Your task to perform on an android device: turn off notifications settings in the gmail app Image 0: 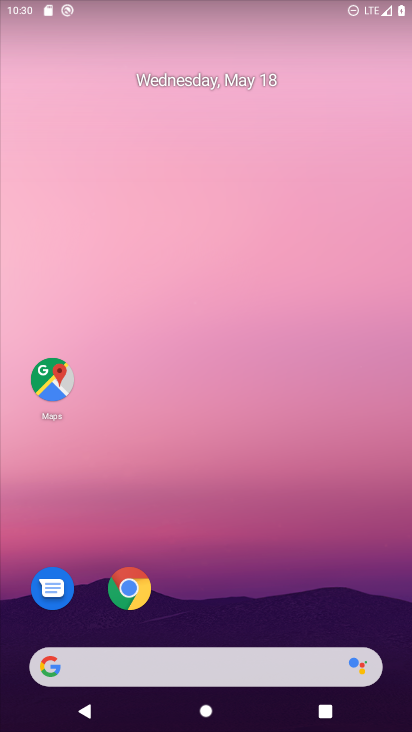
Step 0: drag from (341, 635) to (384, 24)
Your task to perform on an android device: turn off notifications settings in the gmail app Image 1: 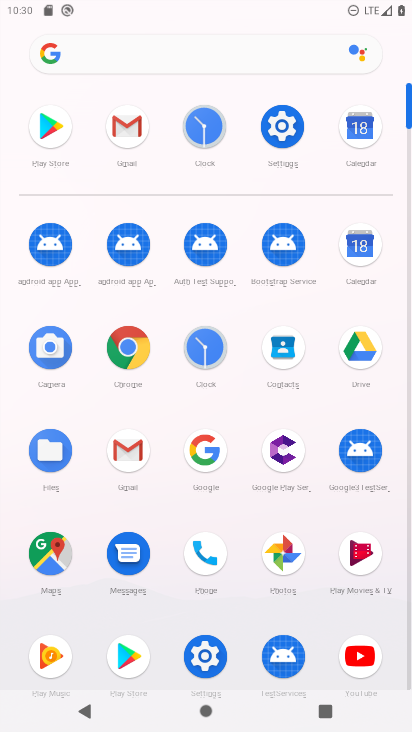
Step 1: click (128, 131)
Your task to perform on an android device: turn off notifications settings in the gmail app Image 2: 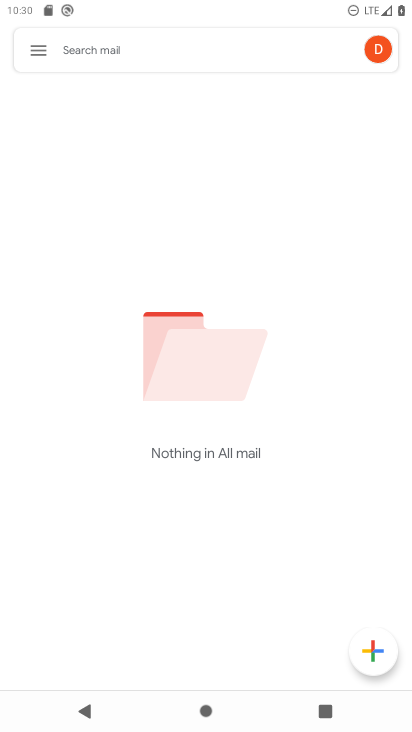
Step 2: click (37, 52)
Your task to perform on an android device: turn off notifications settings in the gmail app Image 3: 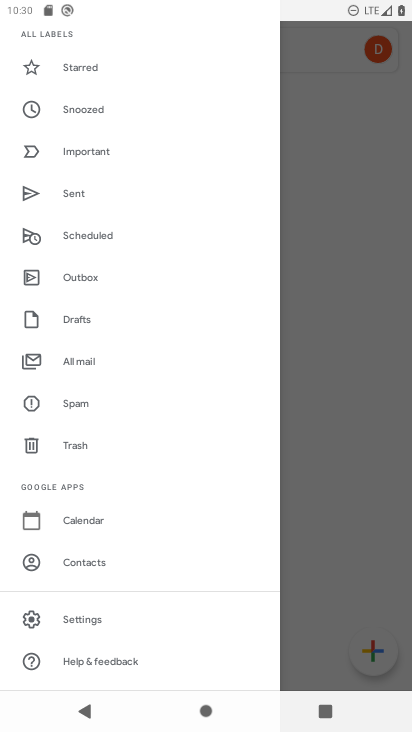
Step 3: click (80, 625)
Your task to perform on an android device: turn off notifications settings in the gmail app Image 4: 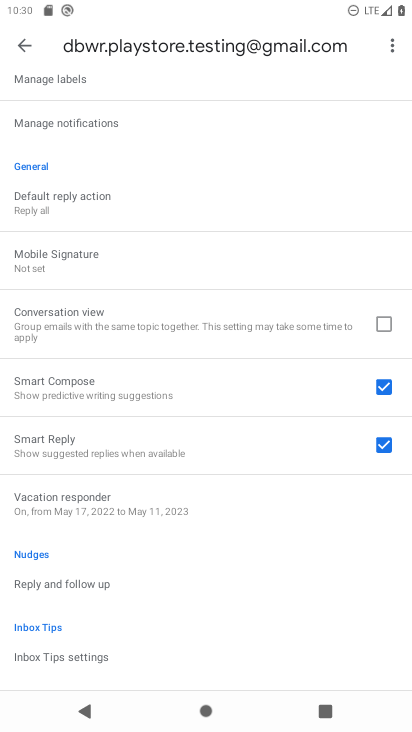
Step 4: click (25, 51)
Your task to perform on an android device: turn off notifications settings in the gmail app Image 5: 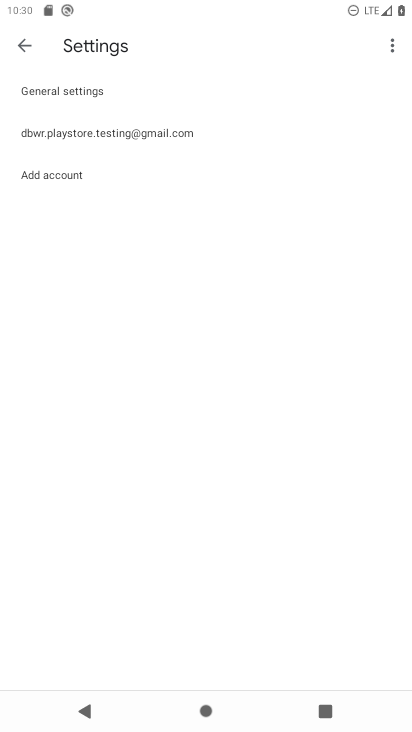
Step 5: click (35, 97)
Your task to perform on an android device: turn off notifications settings in the gmail app Image 6: 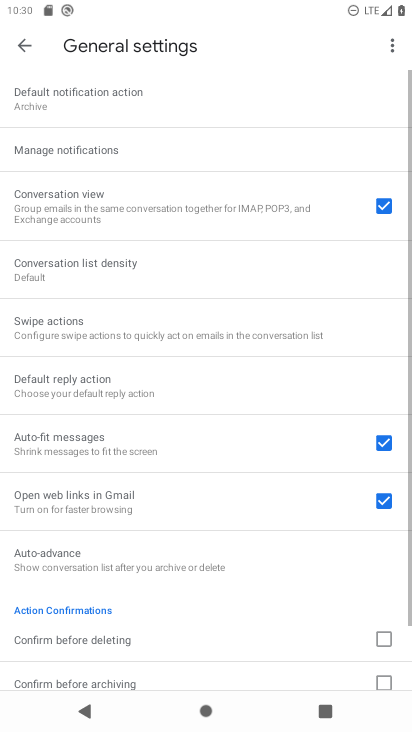
Step 6: click (50, 149)
Your task to perform on an android device: turn off notifications settings in the gmail app Image 7: 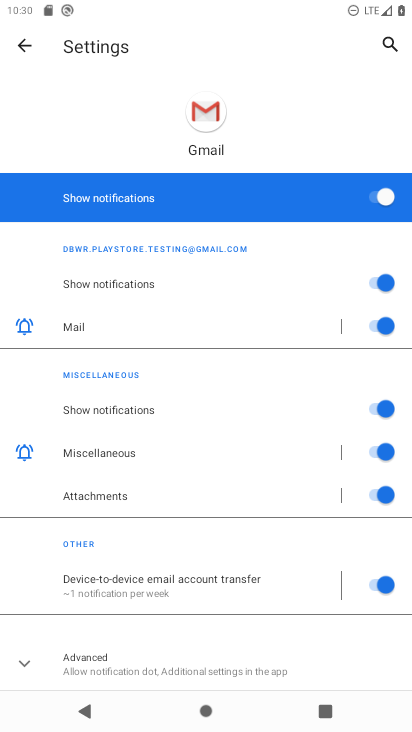
Step 7: click (393, 207)
Your task to perform on an android device: turn off notifications settings in the gmail app Image 8: 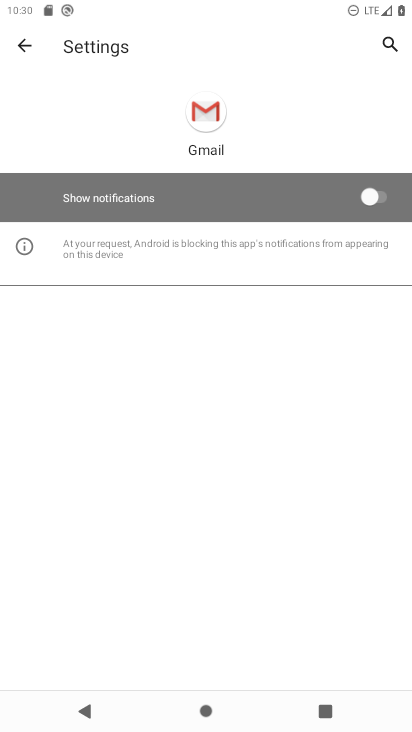
Step 8: task complete